Your task to perform on an android device: Go to Wikipedia Image 0: 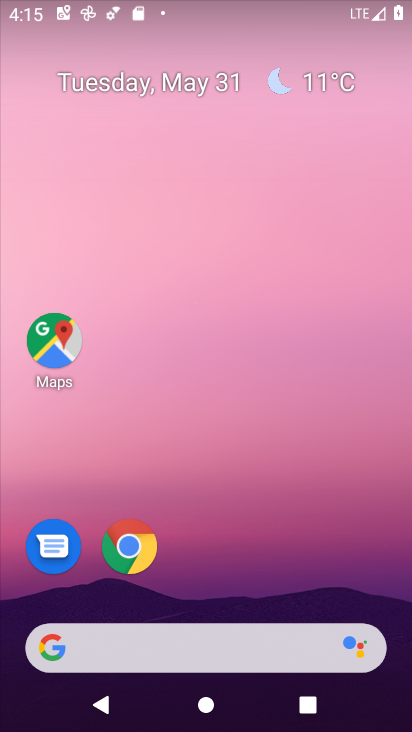
Step 0: click (142, 545)
Your task to perform on an android device: Go to Wikipedia Image 1: 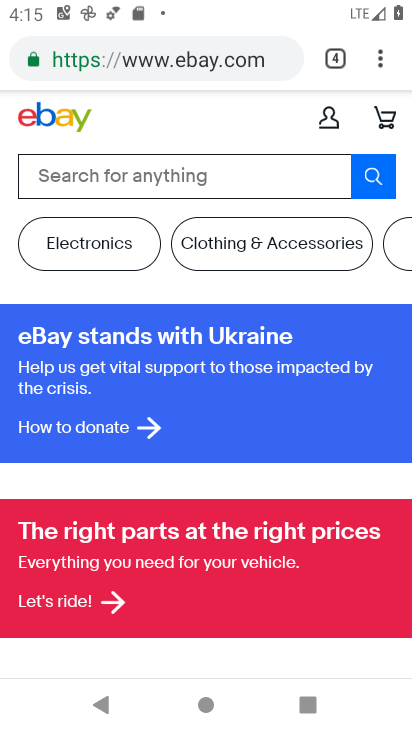
Step 1: click (331, 59)
Your task to perform on an android device: Go to Wikipedia Image 2: 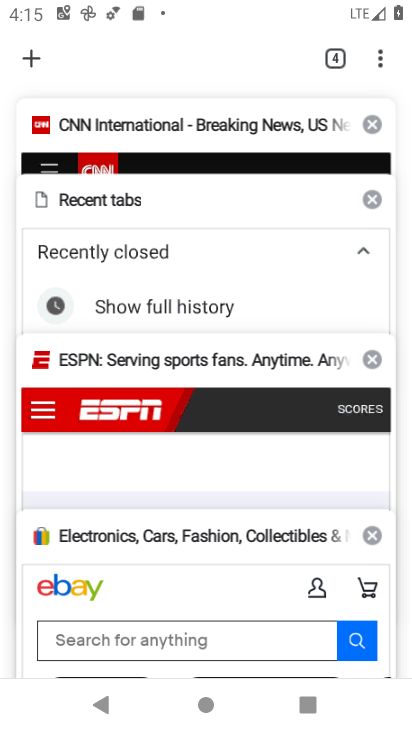
Step 2: click (39, 55)
Your task to perform on an android device: Go to Wikipedia Image 3: 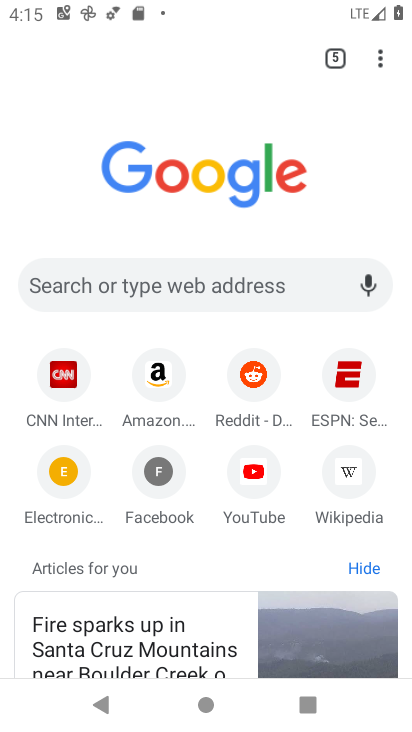
Step 3: click (341, 469)
Your task to perform on an android device: Go to Wikipedia Image 4: 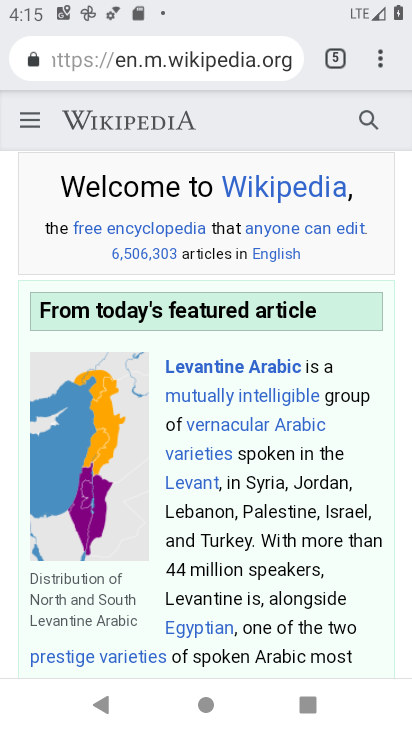
Step 4: task complete